Your task to perform on an android device: toggle airplane mode Image 0: 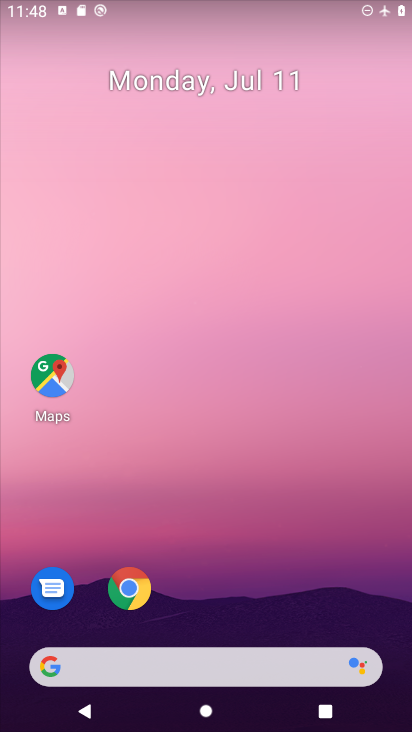
Step 0: drag from (391, 650) to (307, 124)
Your task to perform on an android device: toggle airplane mode Image 1: 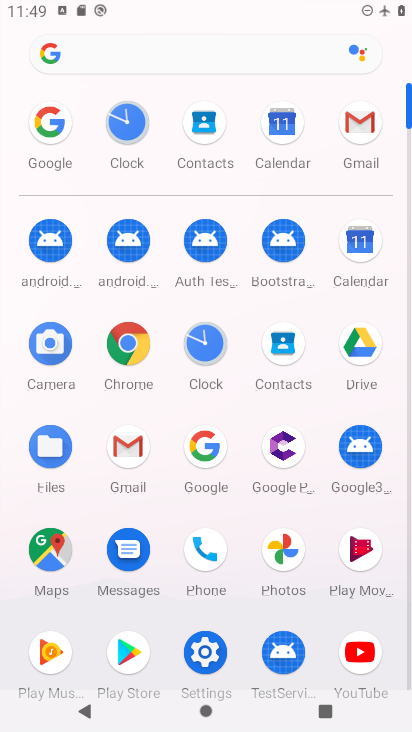
Step 1: drag from (238, 11) to (185, 618)
Your task to perform on an android device: toggle airplane mode Image 2: 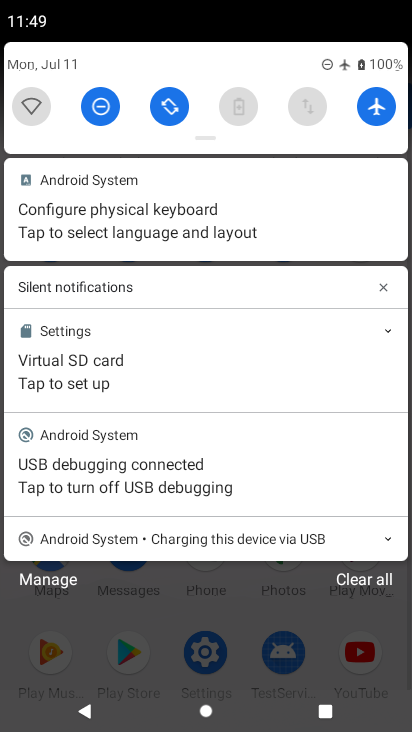
Step 2: click (384, 109)
Your task to perform on an android device: toggle airplane mode Image 3: 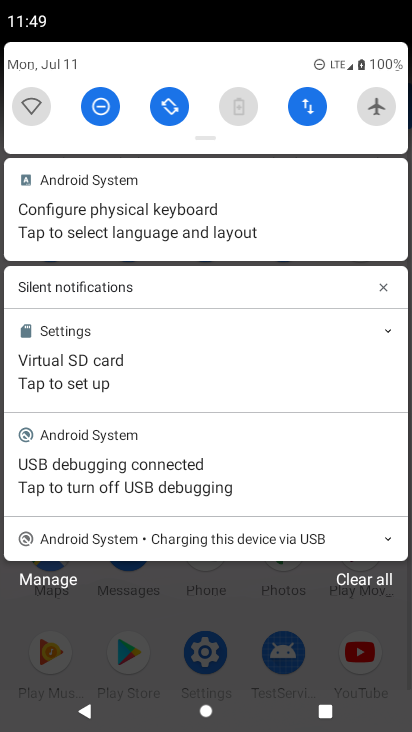
Step 3: task complete